Your task to perform on an android device: open device folders in google photos Image 0: 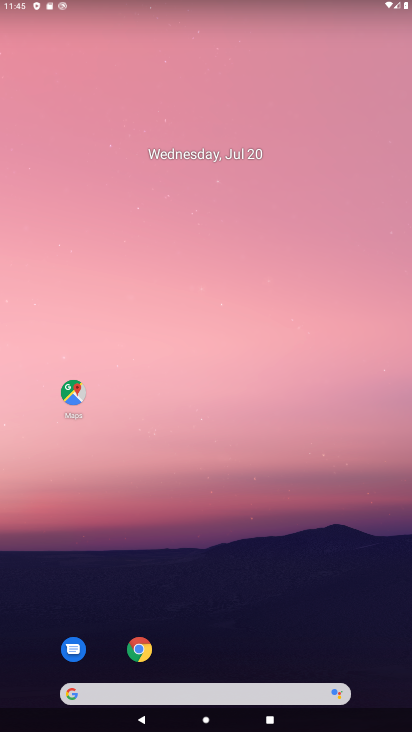
Step 0: press home button
Your task to perform on an android device: open device folders in google photos Image 1: 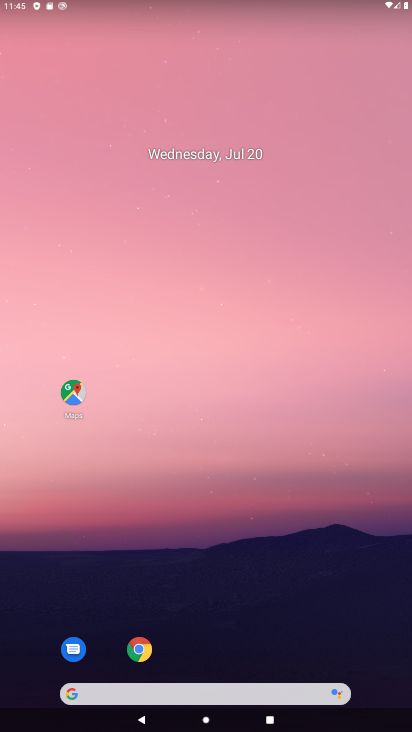
Step 1: press home button
Your task to perform on an android device: open device folders in google photos Image 2: 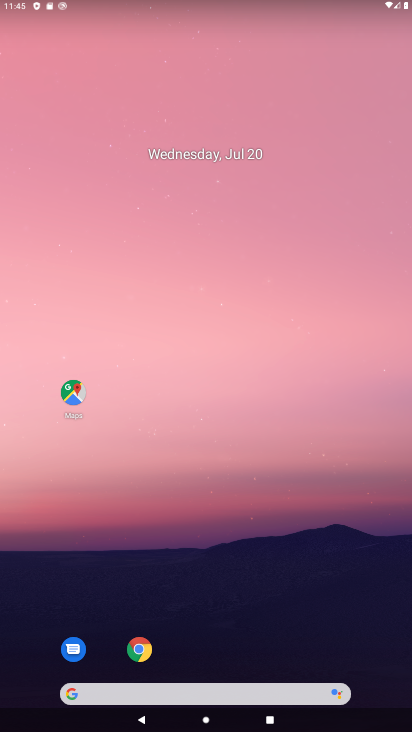
Step 2: click (286, 38)
Your task to perform on an android device: open device folders in google photos Image 3: 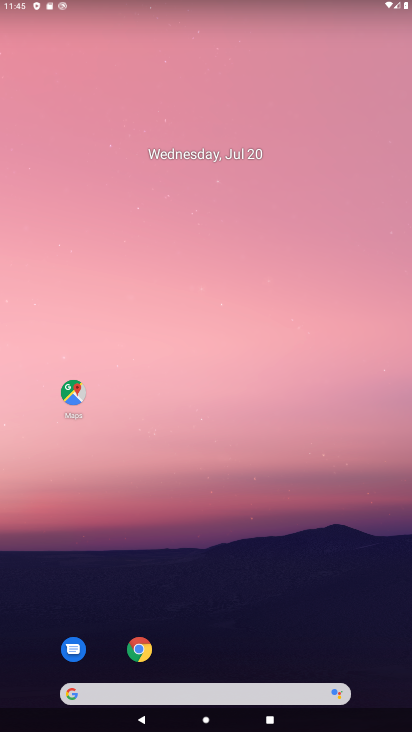
Step 3: drag from (331, 643) to (263, 120)
Your task to perform on an android device: open device folders in google photos Image 4: 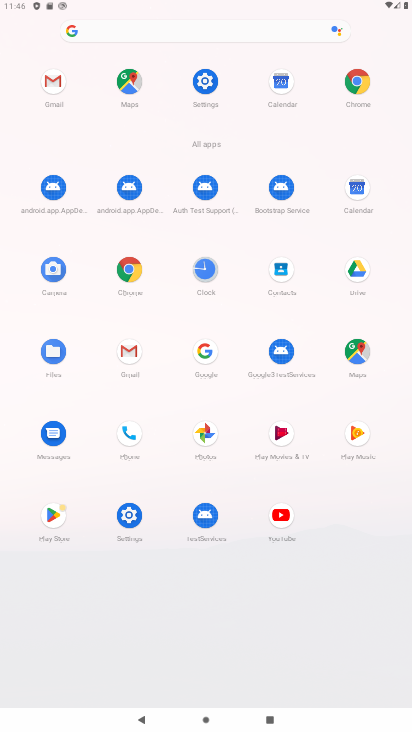
Step 4: click (226, 425)
Your task to perform on an android device: open device folders in google photos Image 5: 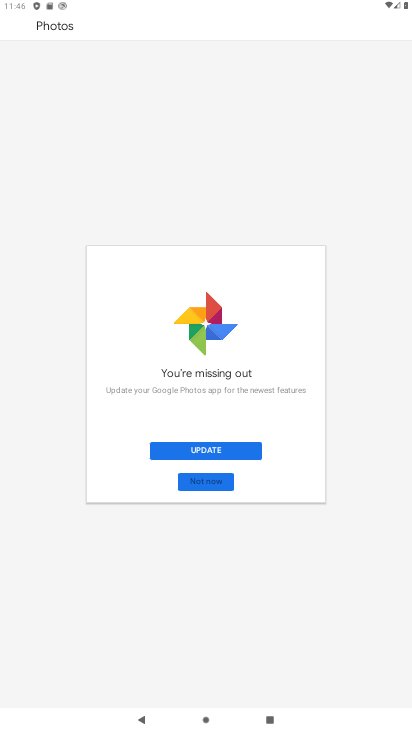
Step 5: click (248, 448)
Your task to perform on an android device: open device folders in google photos Image 6: 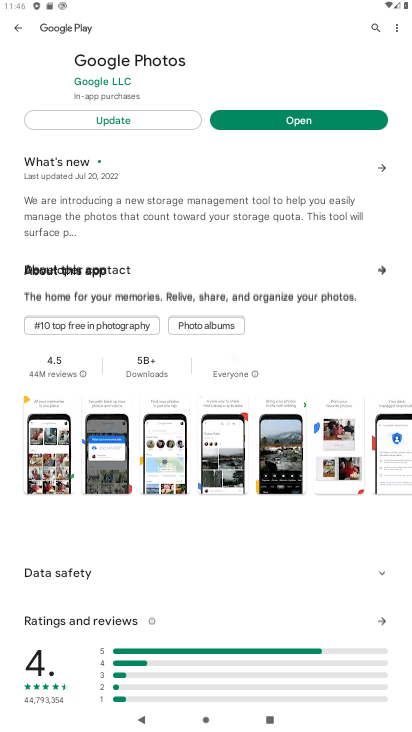
Step 6: click (121, 122)
Your task to perform on an android device: open device folders in google photos Image 7: 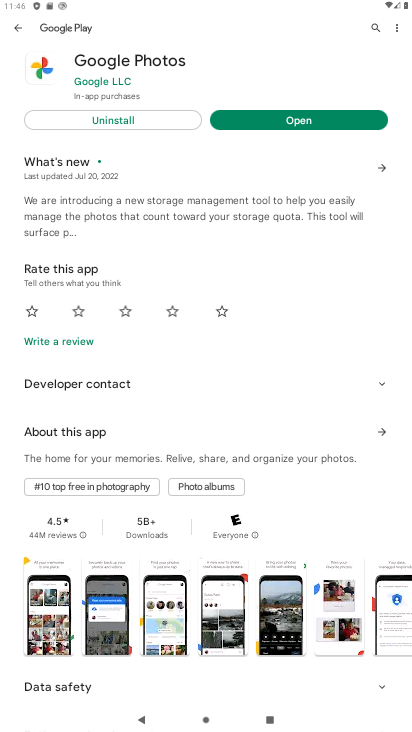
Step 7: click (303, 115)
Your task to perform on an android device: open device folders in google photos Image 8: 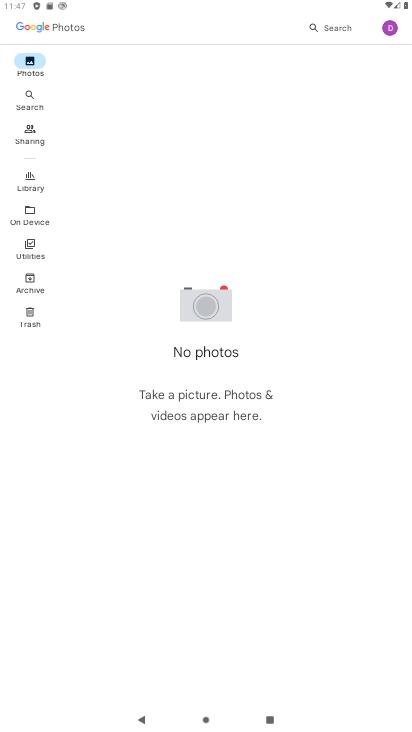
Step 8: click (384, 28)
Your task to perform on an android device: open device folders in google photos Image 9: 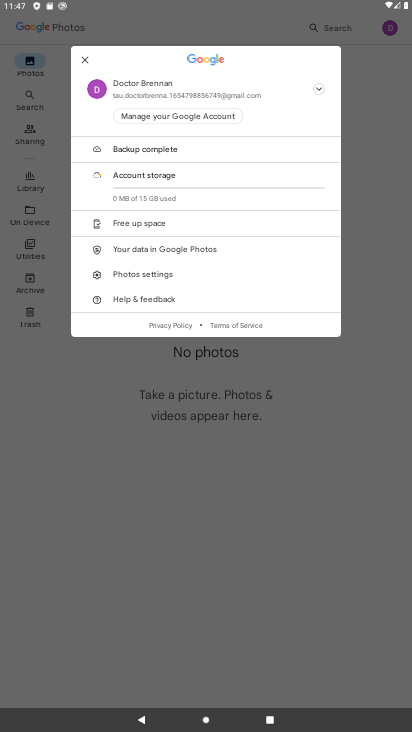
Step 9: click (252, 389)
Your task to perform on an android device: open device folders in google photos Image 10: 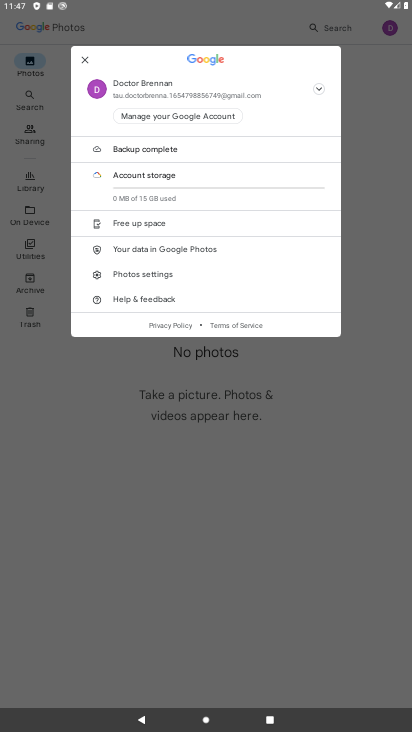
Step 10: task complete